Your task to perform on an android device: delete the emails in spam in the gmail app Image 0: 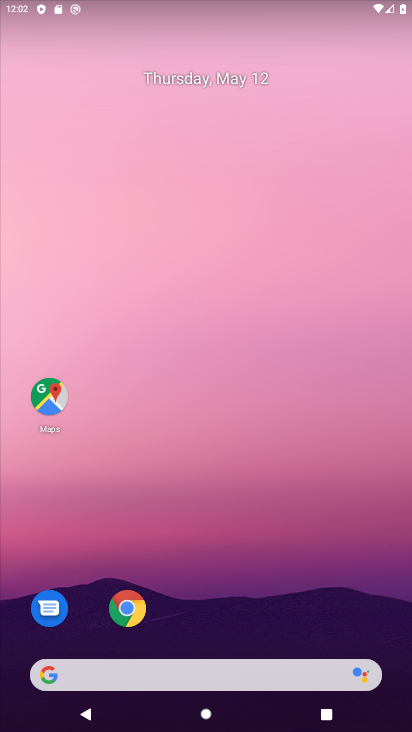
Step 0: drag from (257, 575) to (239, 6)
Your task to perform on an android device: delete the emails in spam in the gmail app Image 1: 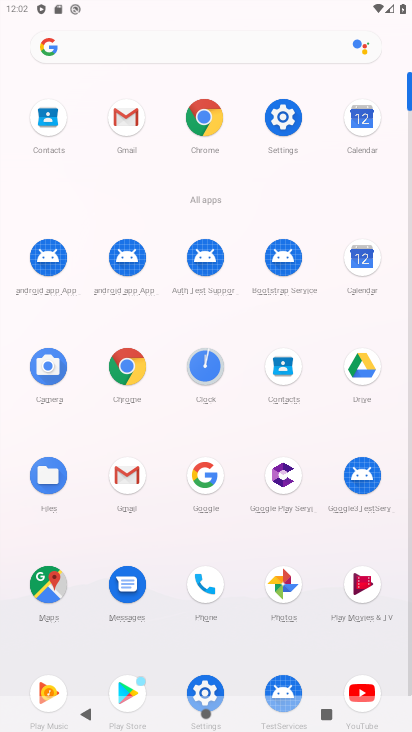
Step 1: click (124, 135)
Your task to perform on an android device: delete the emails in spam in the gmail app Image 2: 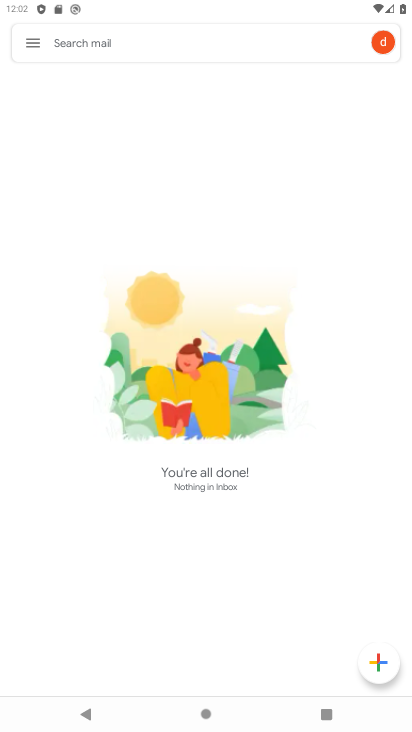
Step 2: click (32, 44)
Your task to perform on an android device: delete the emails in spam in the gmail app Image 3: 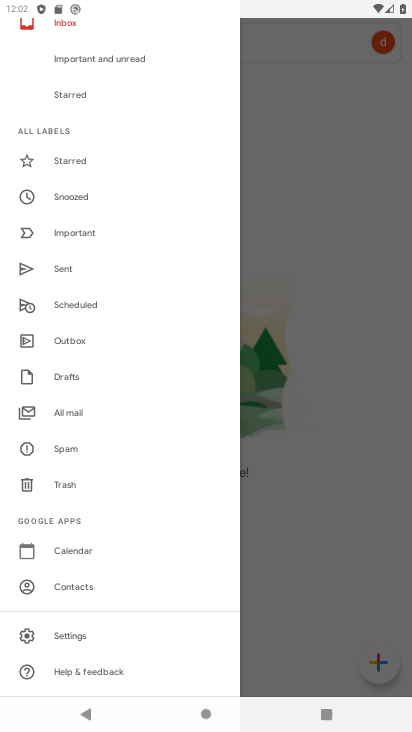
Step 3: click (68, 452)
Your task to perform on an android device: delete the emails in spam in the gmail app Image 4: 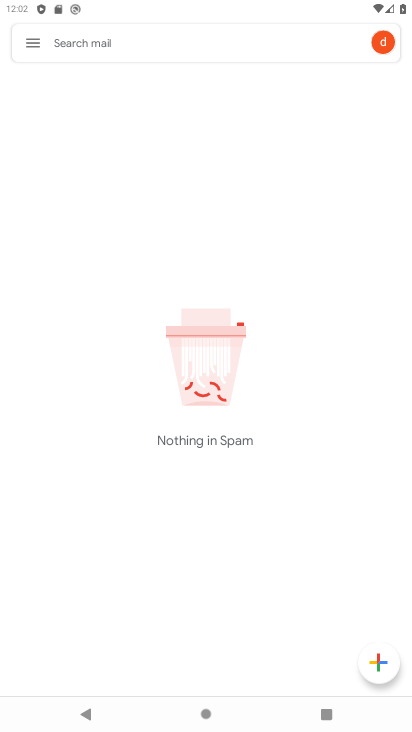
Step 4: task complete